Your task to perform on an android device: set the stopwatch Image 0: 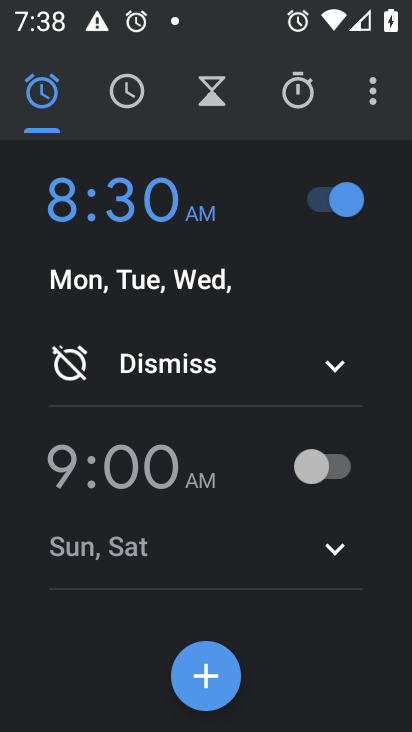
Step 0: press home button
Your task to perform on an android device: set the stopwatch Image 1: 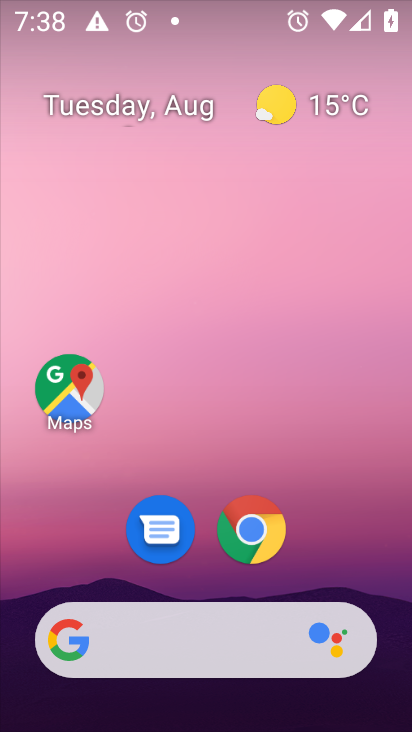
Step 1: drag from (207, 589) to (213, 1)
Your task to perform on an android device: set the stopwatch Image 2: 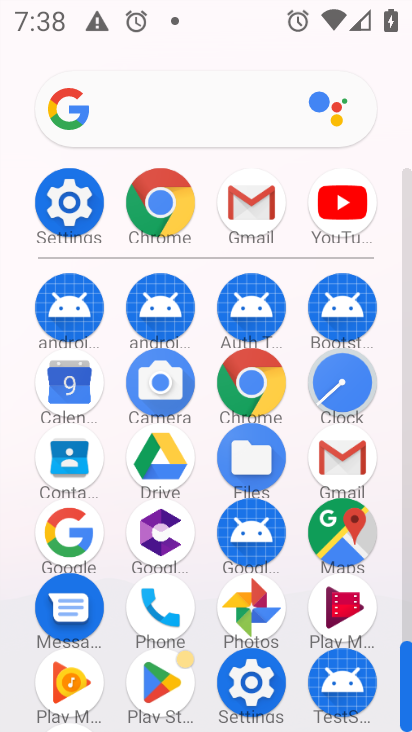
Step 2: click (355, 383)
Your task to perform on an android device: set the stopwatch Image 3: 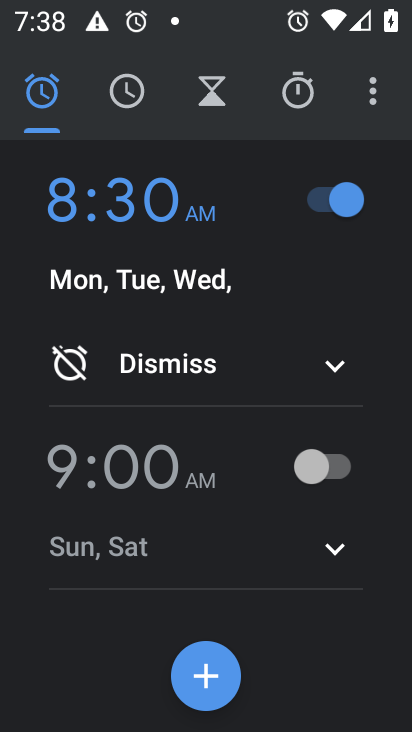
Step 3: click (293, 95)
Your task to perform on an android device: set the stopwatch Image 4: 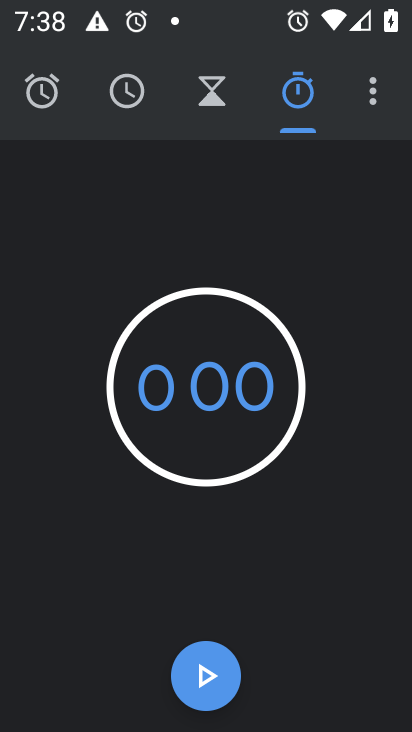
Step 4: click (206, 670)
Your task to perform on an android device: set the stopwatch Image 5: 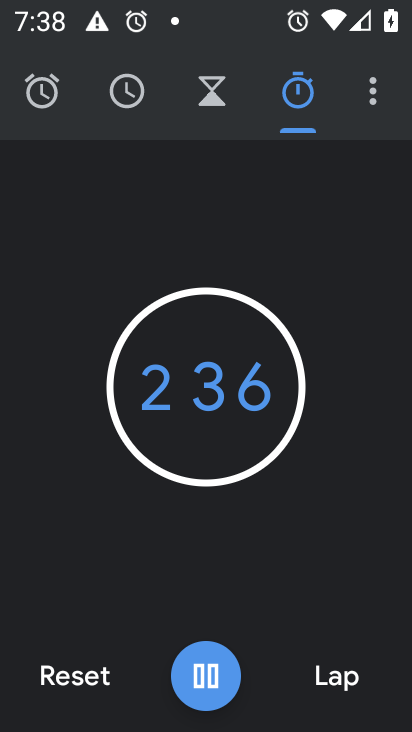
Step 5: task complete